Your task to perform on an android device: read, delete, or share a saved page in the chrome app Image 0: 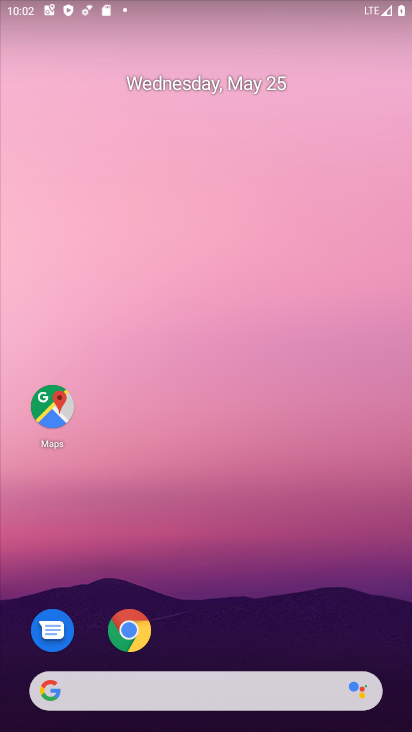
Step 0: click (139, 623)
Your task to perform on an android device: read, delete, or share a saved page in the chrome app Image 1: 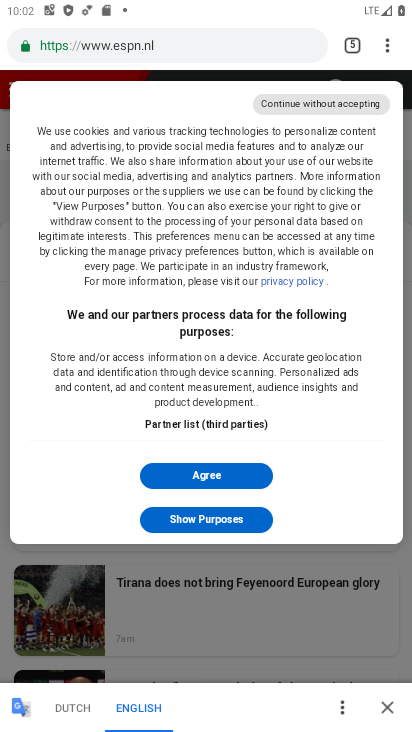
Step 1: click (386, 48)
Your task to perform on an android device: read, delete, or share a saved page in the chrome app Image 2: 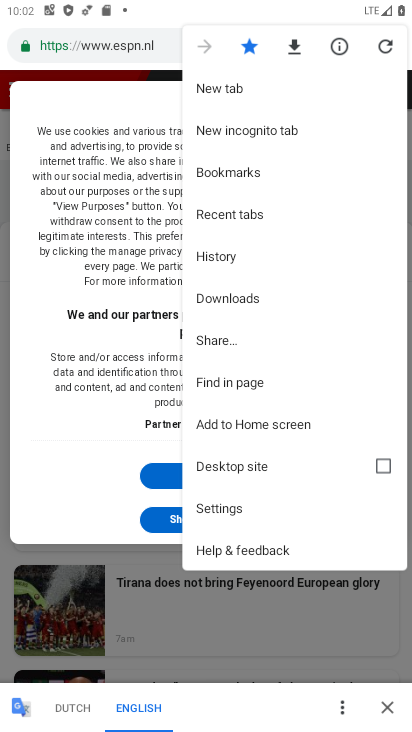
Step 2: click (226, 300)
Your task to perform on an android device: read, delete, or share a saved page in the chrome app Image 3: 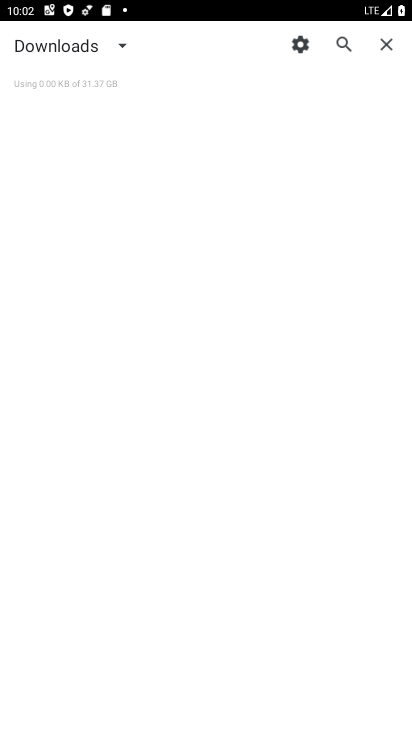
Step 3: click (114, 53)
Your task to perform on an android device: read, delete, or share a saved page in the chrome app Image 4: 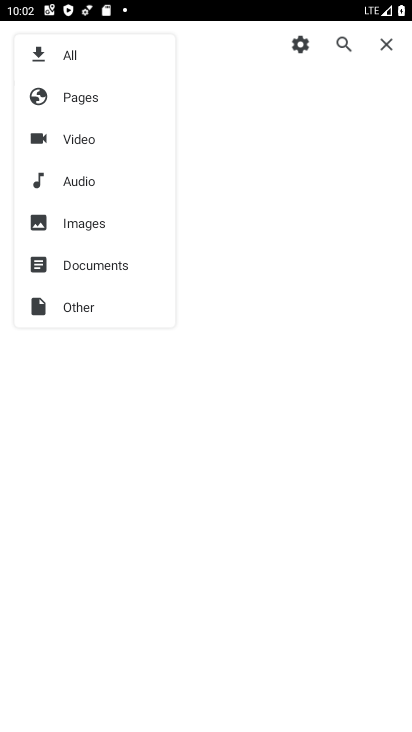
Step 4: click (76, 82)
Your task to perform on an android device: read, delete, or share a saved page in the chrome app Image 5: 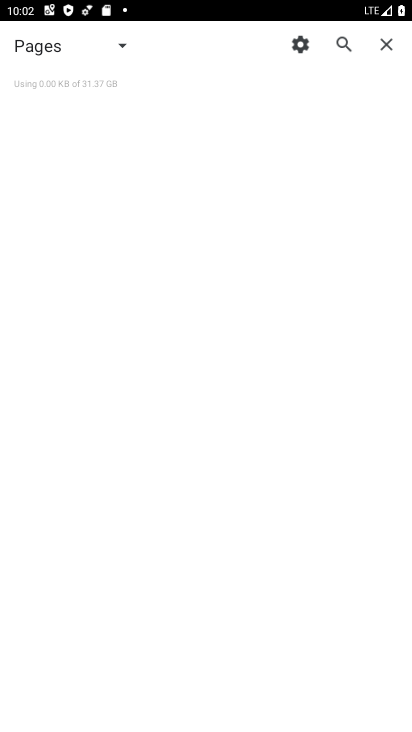
Step 5: task complete